Your task to perform on an android device: search for starred emails in the gmail app Image 0: 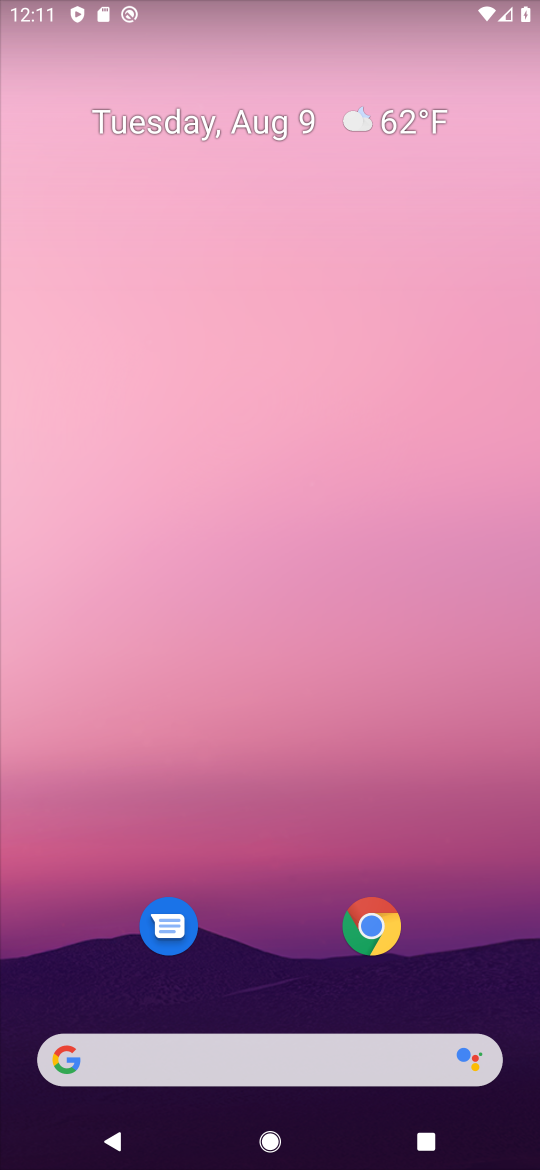
Step 0: drag from (55, 798) to (183, 361)
Your task to perform on an android device: search for starred emails in the gmail app Image 1: 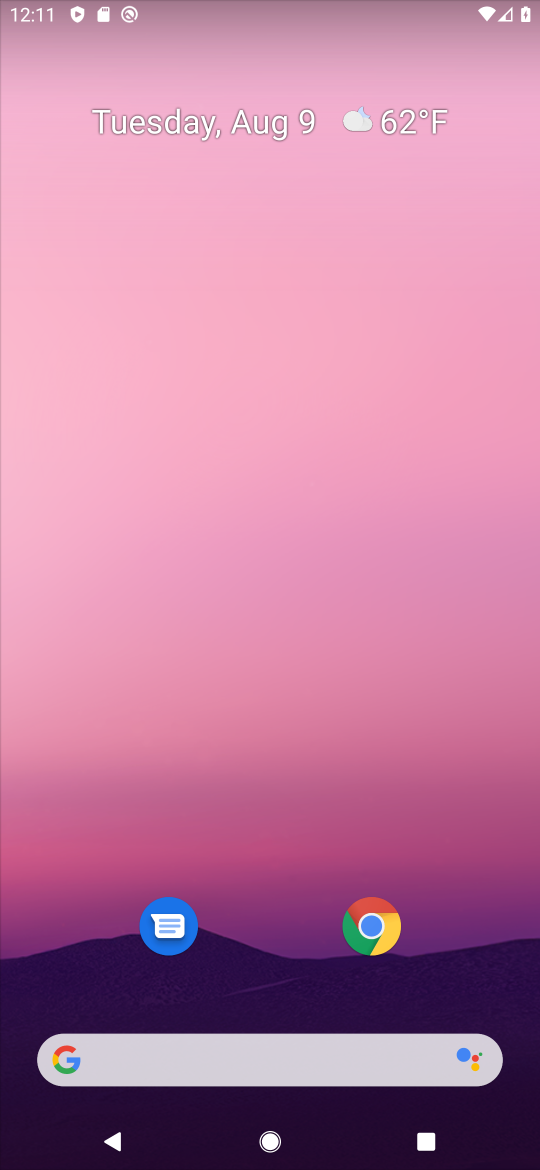
Step 1: drag from (46, 433) to (150, 44)
Your task to perform on an android device: search for starred emails in the gmail app Image 2: 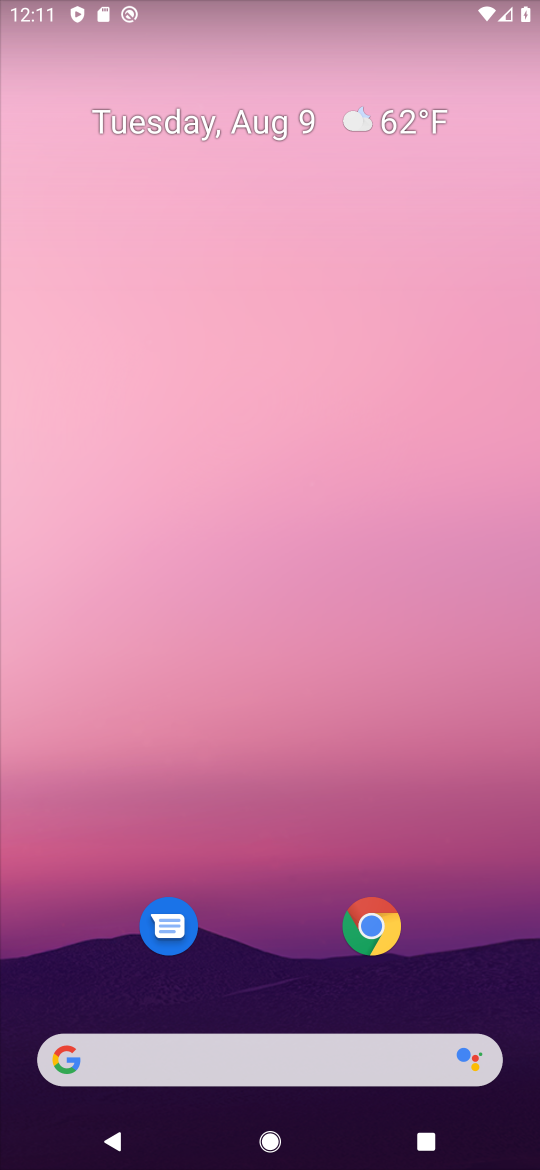
Step 2: drag from (73, 949) to (339, 67)
Your task to perform on an android device: search for starred emails in the gmail app Image 3: 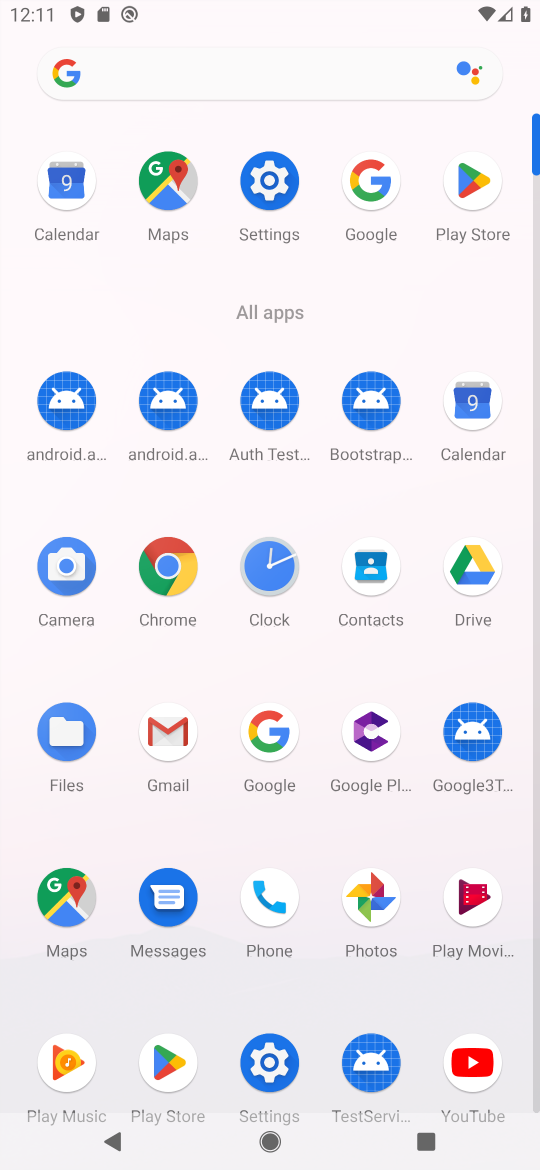
Step 3: click (157, 733)
Your task to perform on an android device: search for starred emails in the gmail app Image 4: 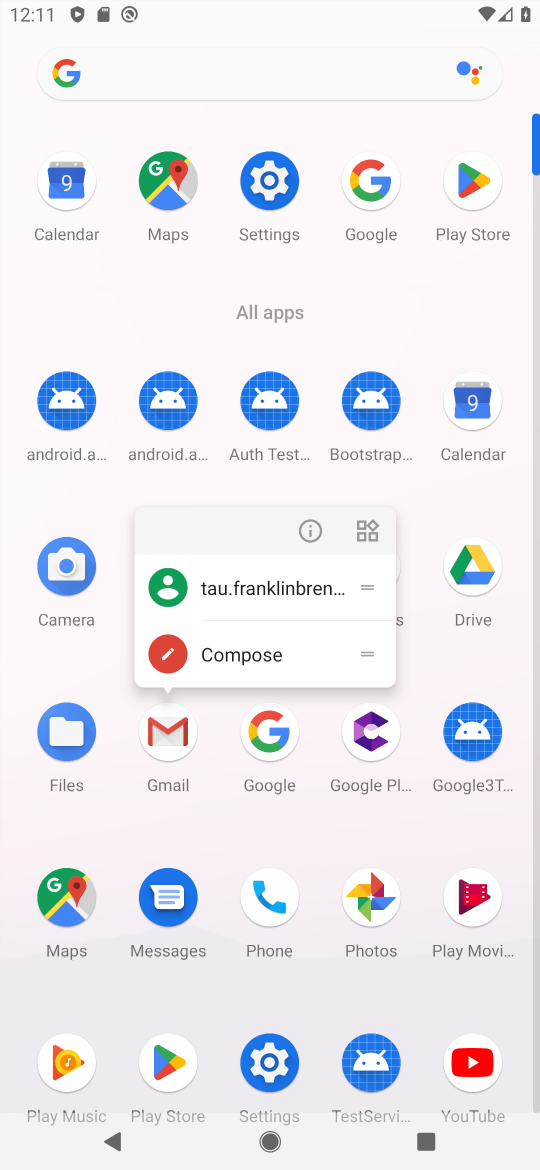
Step 4: click (159, 726)
Your task to perform on an android device: search for starred emails in the gmail app Image 5: 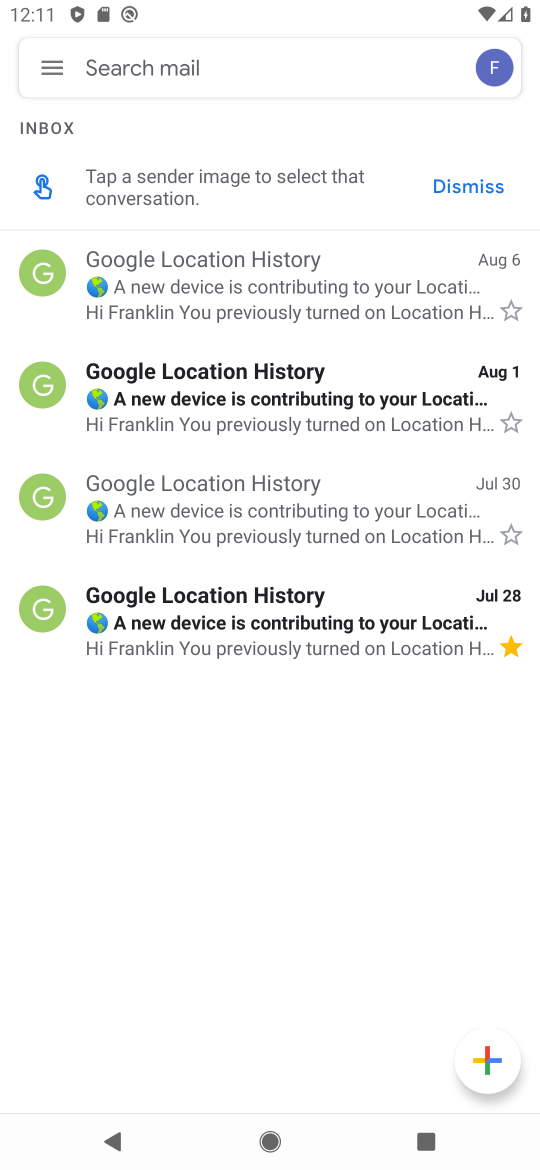
Step 5: click (53, 67)
Your task to perform on an android device: search for starred emails in the gmail app Image 6: 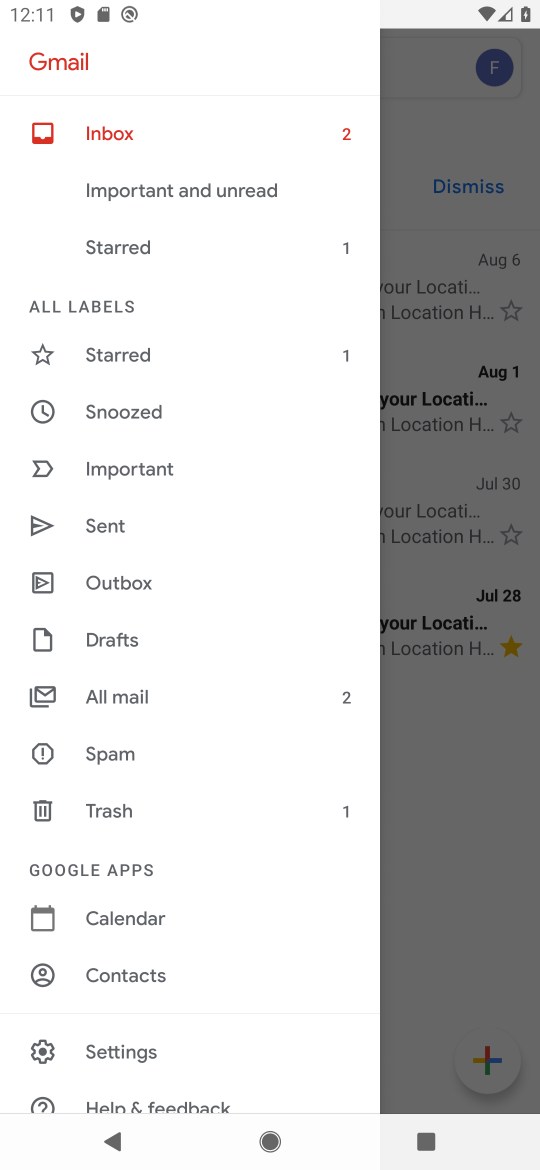
Step 6: click (193, 362)
Your task to perform on an android device: search for starred emails in the gmail app Image 7: 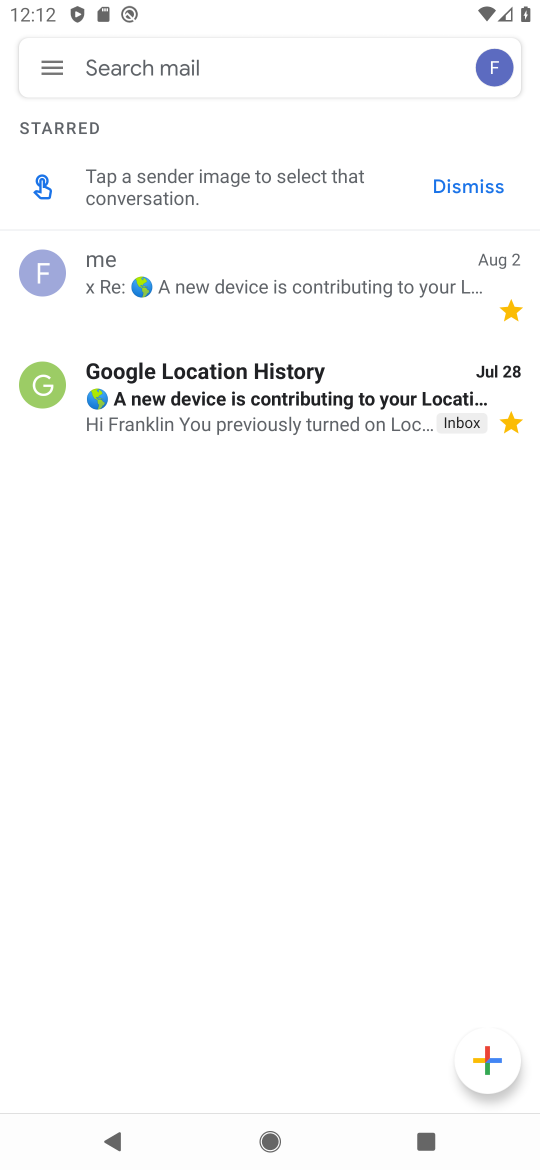
Step 7: task complete